Your task to perform on an android device: turn pop-ups on in chrome Image 0: 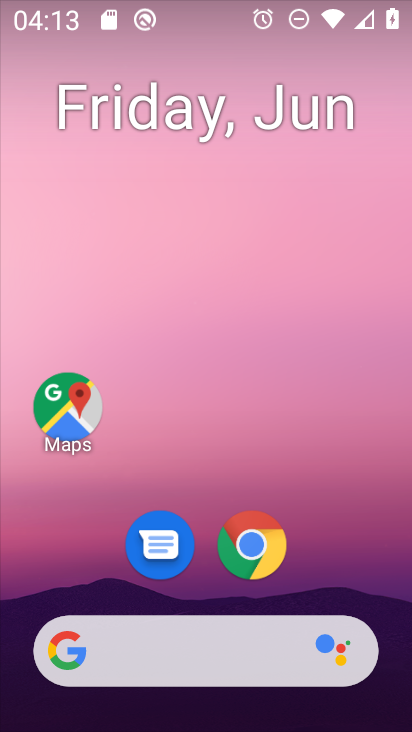
Step 0: drag from (332, 596) to (320, 62)
Your task to perform on an android device: turn pop-ups on in chrome Image 1: 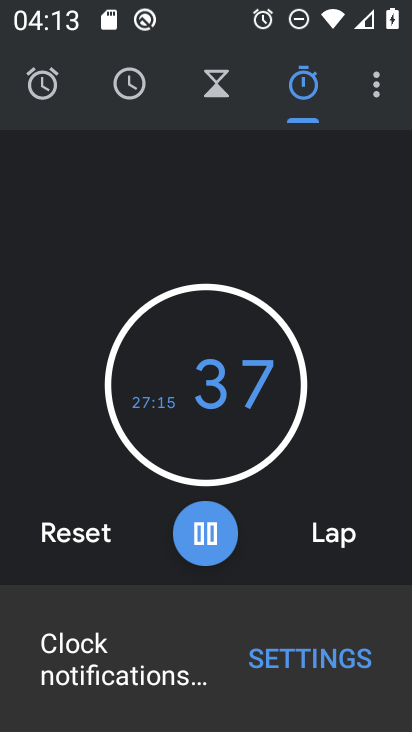
Step 1: press home button
Your task to perform on an android device: turn pop-ups on in chrome Image 2: 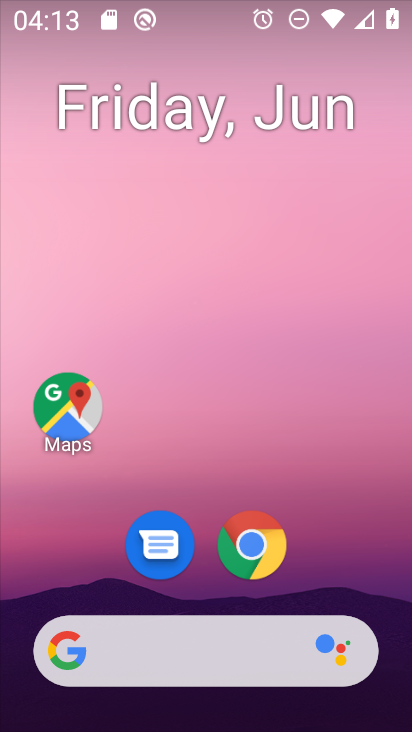
Step 2: click (235, 553)
Your task to perform on an android device: turn pop-ups on in chrome Image 3: 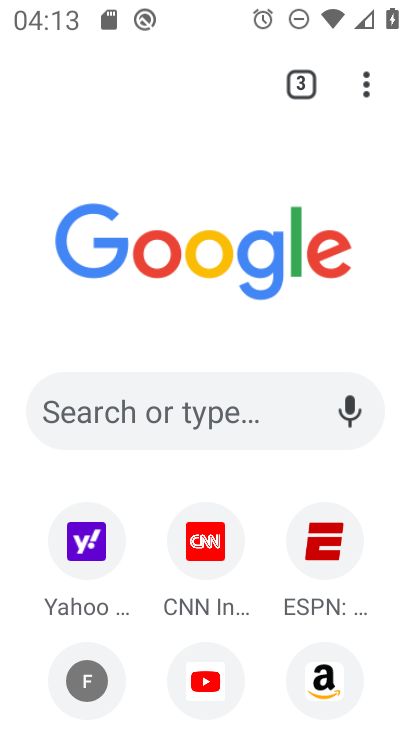
Step 3: click (369, 94)
Your task to perform on an android device: turn pop-ups on in chrome Image 4: 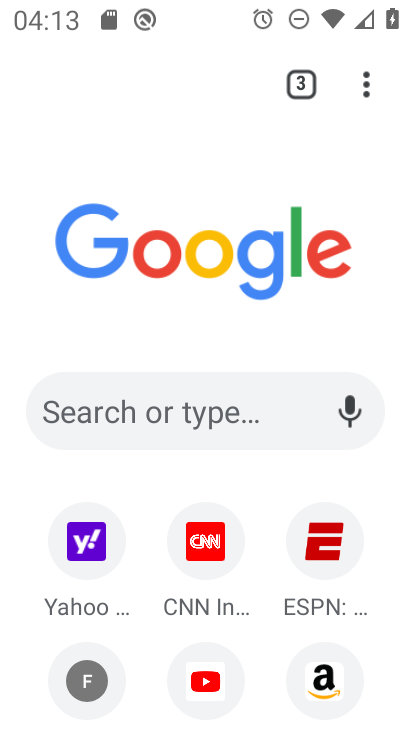
Step 4: click (378, 94)
Your task to perform on an android device: turn pop-ups on in chrome Image 5: 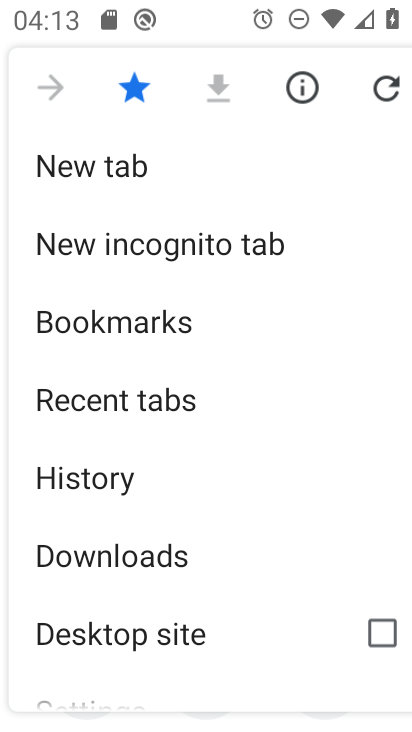
Step 5: drag from (206, 594) to (145, 173)
Your task to perform on an android device: turn pop-ups on in chrome Image 6: 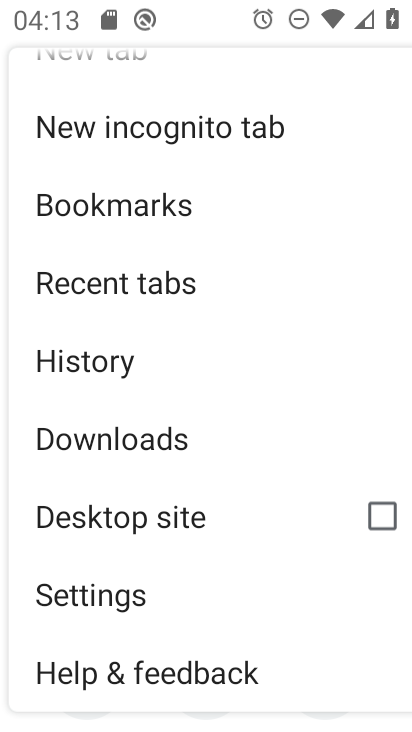
Step 6: click (124, 592)
Your task to perform on an android device: turn pop-ups on in chrome Image 7: 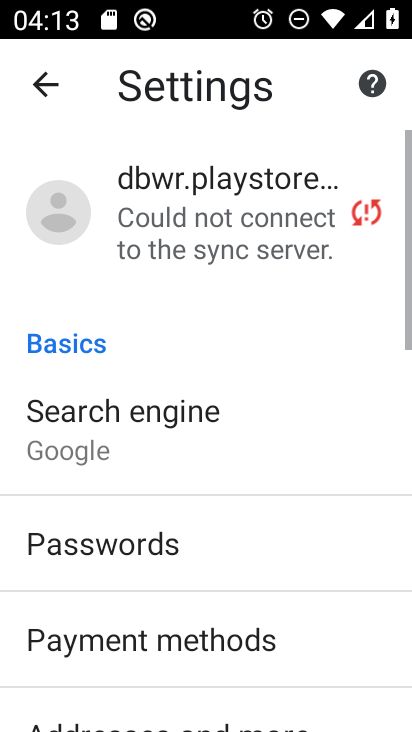
Step 7: drag from (156, 590) to (176, 118)
Your task to perform on an android device: turn pop-ups on in chrome Image 8: 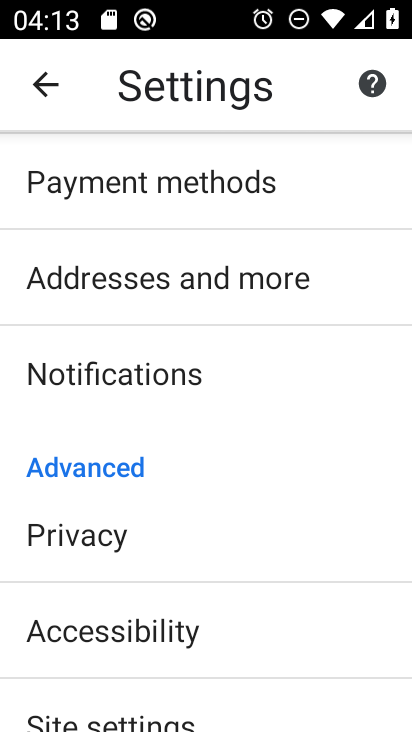
Step 8: click (116, 711)
Your task to perform on an android device: turn pop-ups on in chrome Image 9: 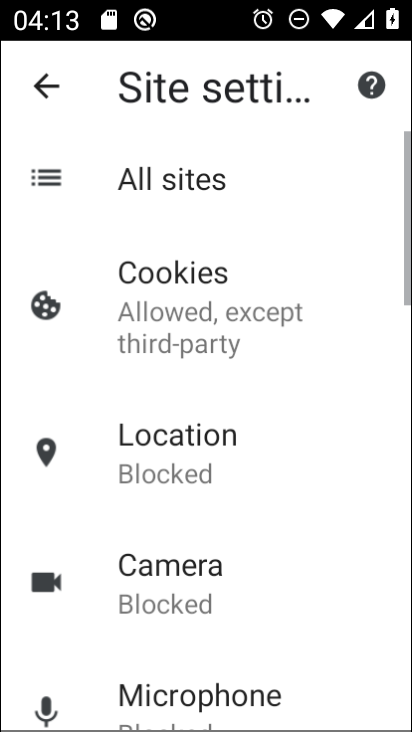
Step 9: click (150, 207)
Your task to perform on an android device: turn pop-ups on in chrome Image 10: 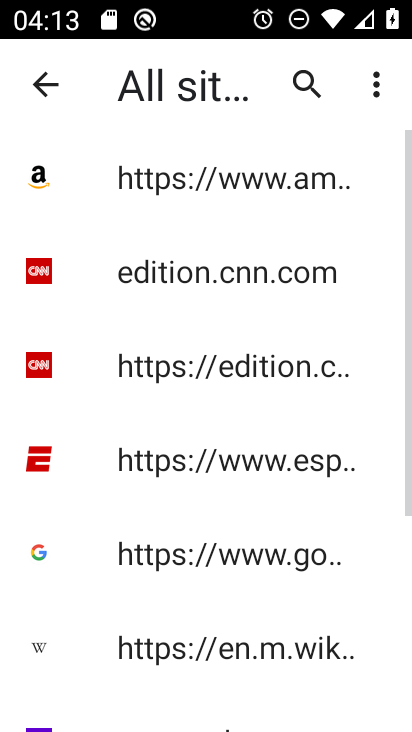
Step 10: click (50, 70)
Your task to perform on an android device: turn pop-ups on in chrome Image 11: 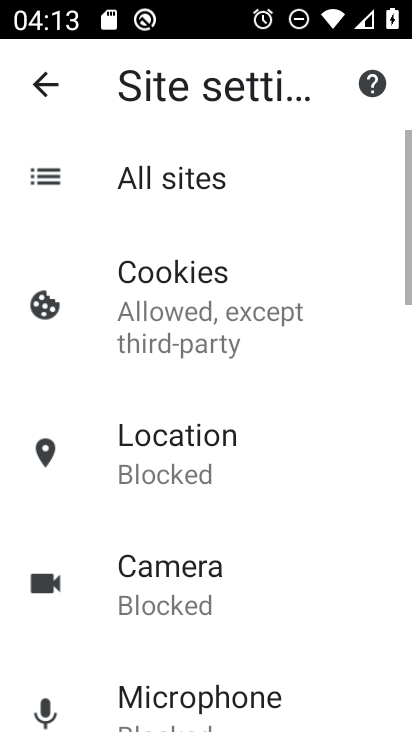
Step 11: drag from (179, 570) to (183, 137)
Your task to perform on an android device: turn pop-ups on in chrome Image 12: 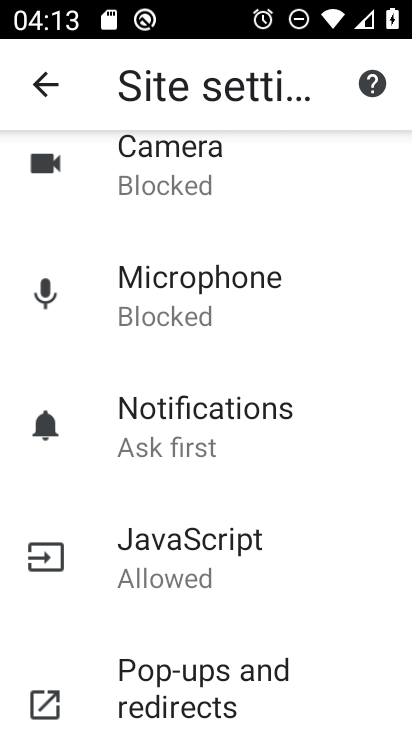
Step 12: click (176, 671)
Your task to perform on an android device: turn pop-ups on in chrome Image 13: 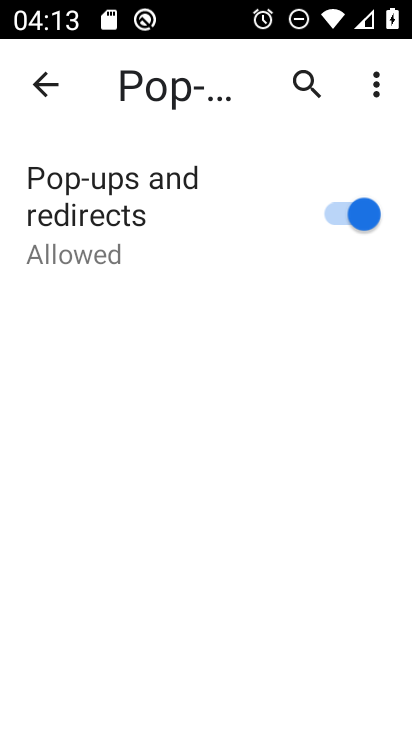
Step 13: task complete